Your task to perform on an android device: Open sound settings Image 0: 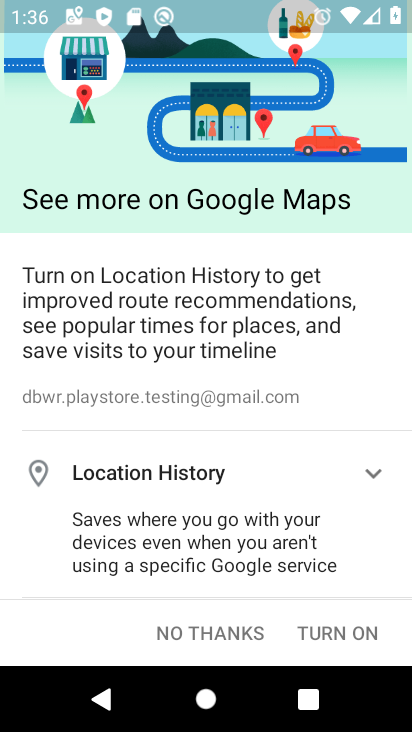
Step 0: click (234, 626)
Your task to perform on an android device: Open sound settings Image 1: 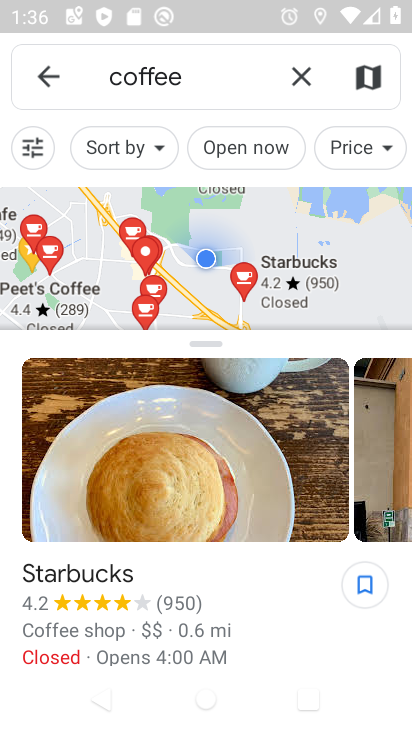
Step 1: press home button
Your task to perform on an android device: Open sound settings Image 2: 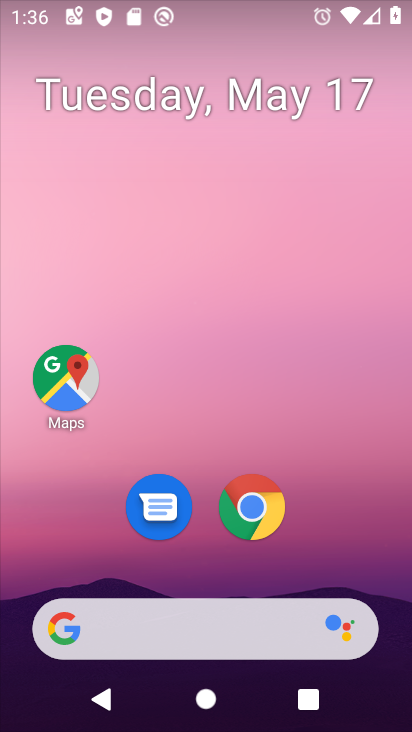
Step 2: drag from (309, 562) to (326, 228)
Your task to perform on an android device: Open sound settings Image 3: 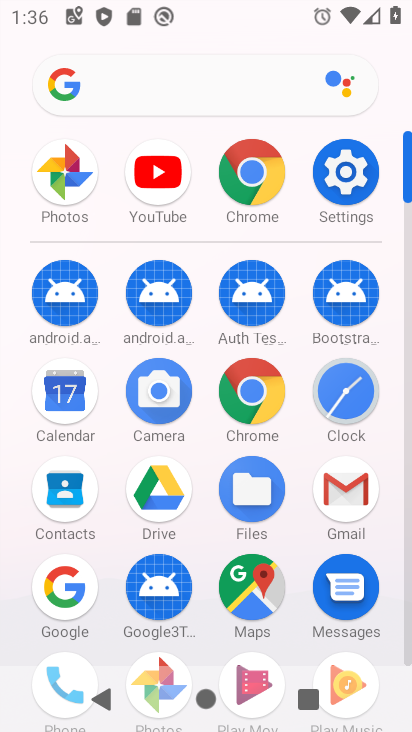
Step 3: click (358, 146)
Your task to perform on an android device: Open sound settings Image 4: 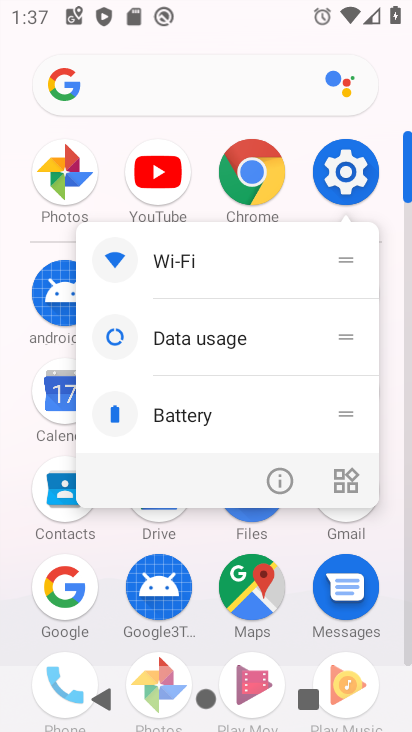
Step 4: click (357, 166)
Your task to perform on an android device: Open sound settings Image 5: 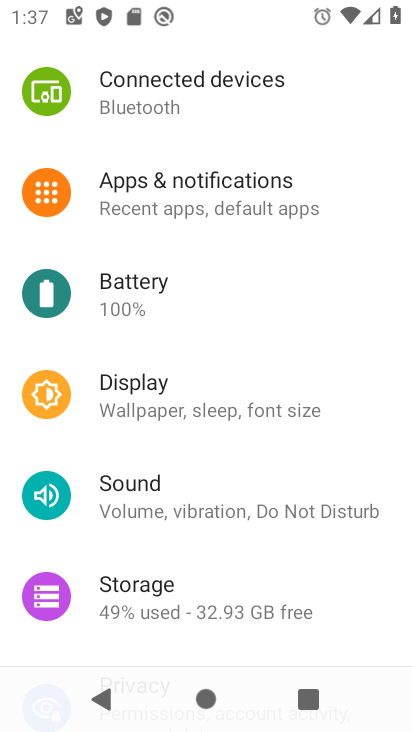
Step 5: click (173, 499)
Your task to perform on an android device: Open sound settings Image 6: 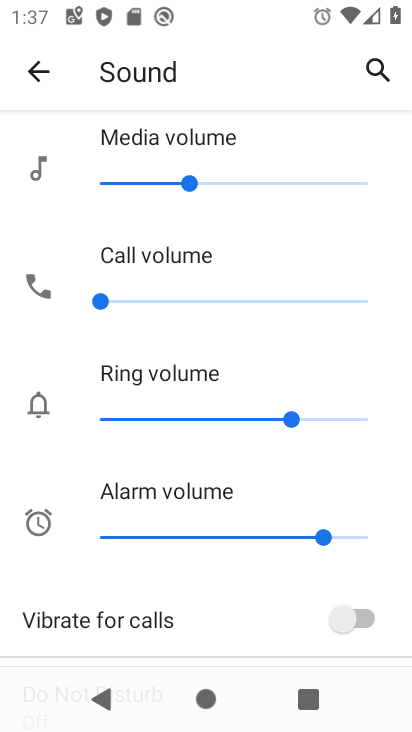
Step 6: task complete